Your task to perform on an android device: Go to network settings Image 0: 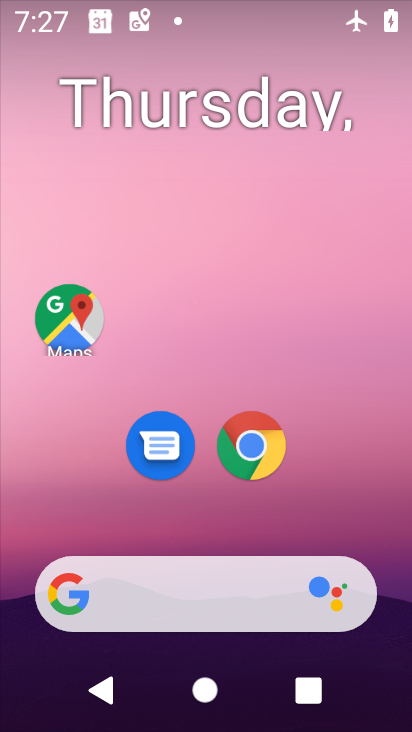
Step 0: drag from (380, 636) to (318, 0)
Your task to perform on an android device: Go to network settings Image 1: 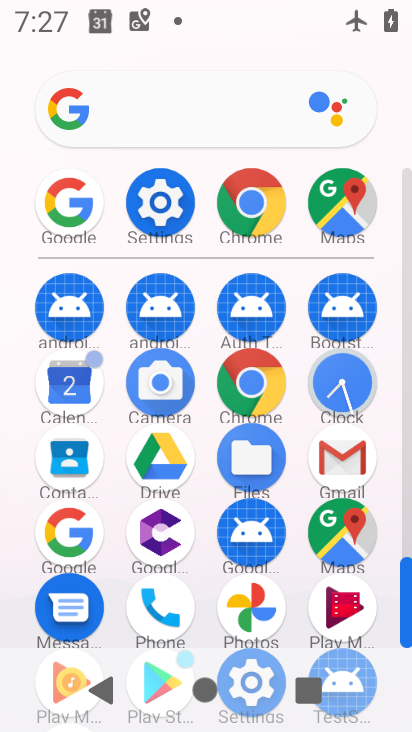
Step 1: click (165, 199)
Your task to perform on an android device: Go to network settings Image 2: 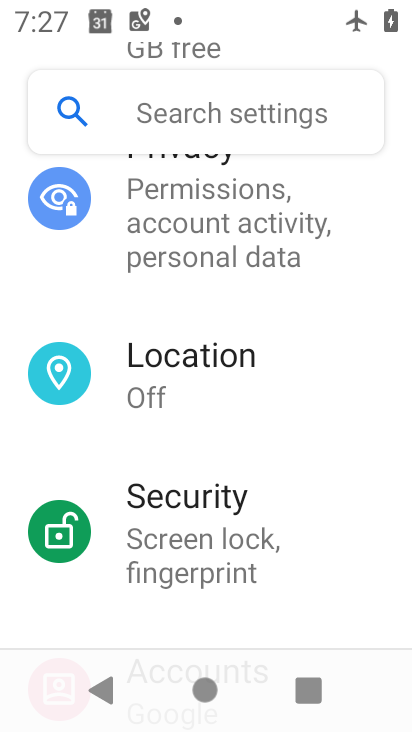
Step 2: drag from (165, 199) to (224, 569)
Your task to perform on an android device: Go to network settings Image 3: 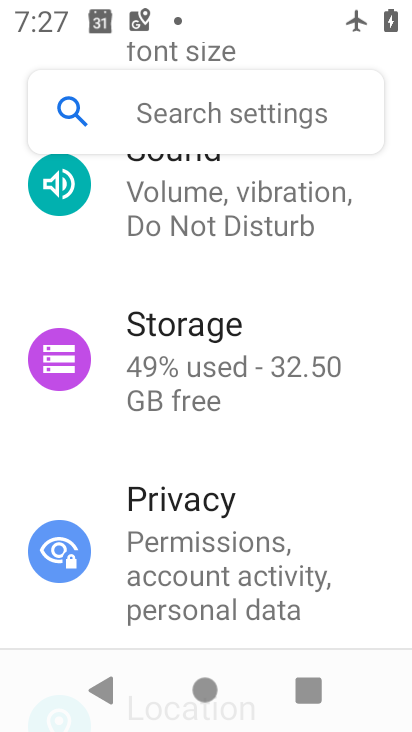
Step 3: drag from (142, 193) to (101, 719)
Your task to perform on an android device: Go to network settings Image 4: 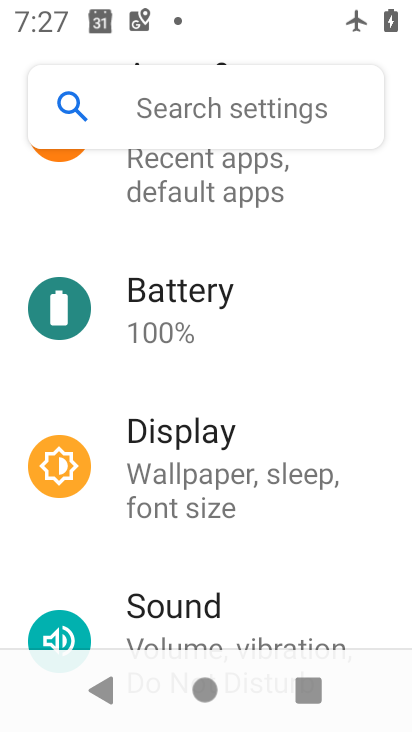
Step 4: drag from (172, 290) to (241, 692)
Your task to perform on an android device: Go to network settings Image 5: 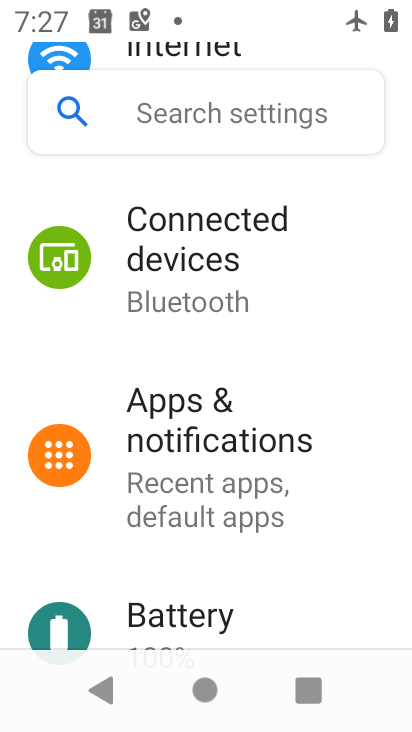
Step 5: drag from (134, 274) to (204, 731)
Your task to perform on an android device: Go to network settings Image 6: 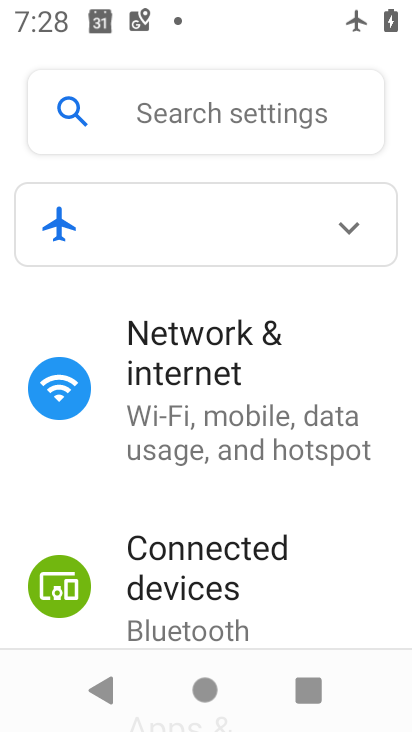
Step 6: click (177, 416)
Your task to perform on an android device: Go to network settings Image 7: 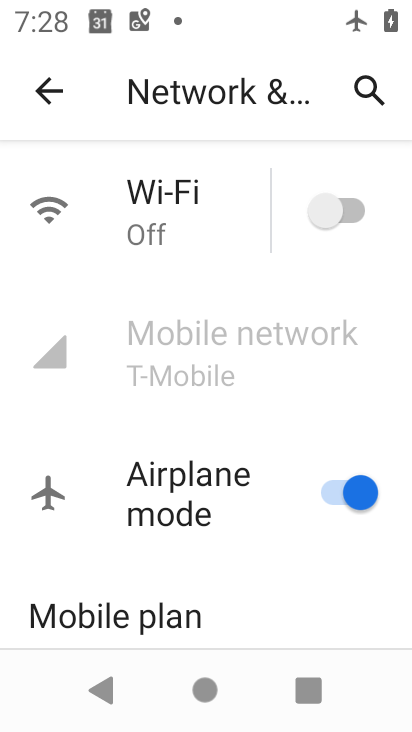
Step 7: task complete